Your task to perform on an android device: Open the map Image 0: 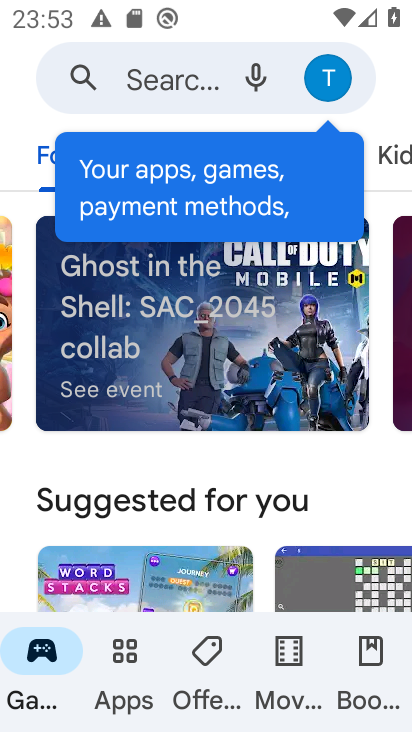
Step 0: press home button
Your task to perform on an android device: Open the map Image 1: 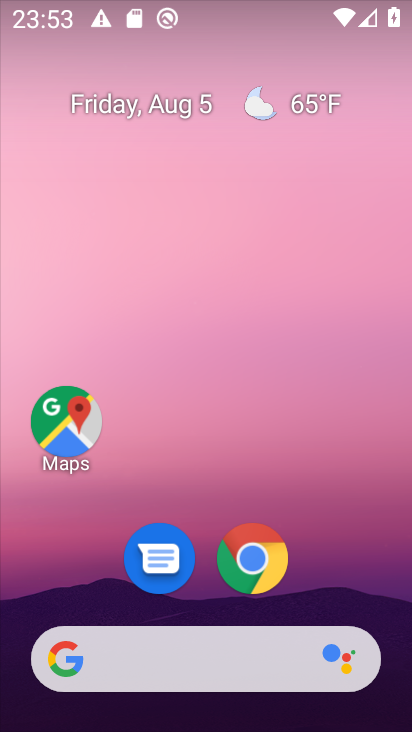
Step 1: drag from (339, 604) to (383, 285)
Your task to perform on an android device: Open the map Image 2: 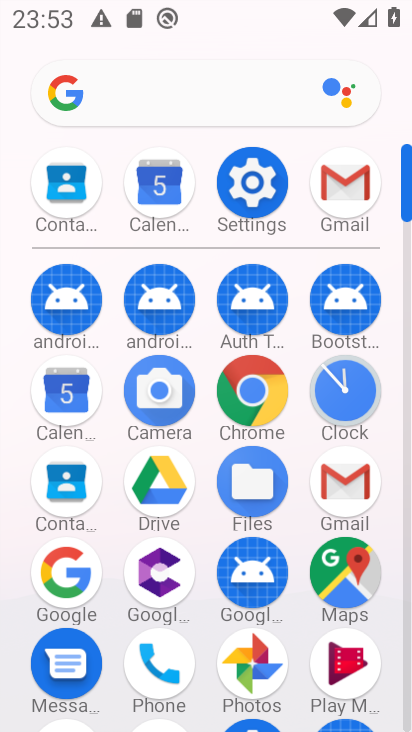
Step 2: click (341, 582)
Your task to perform on an android device: Open the map Image 3: 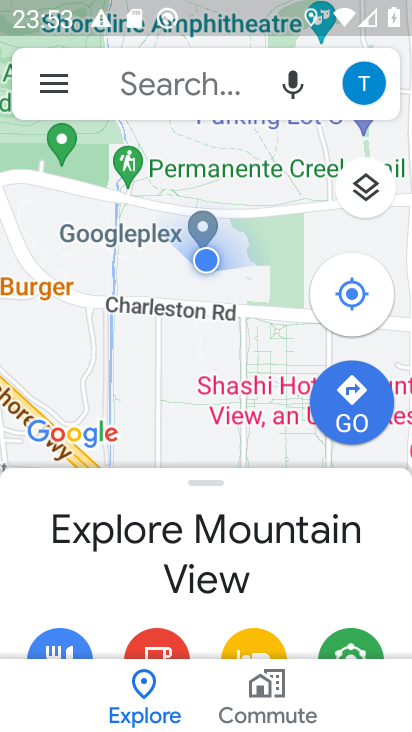
Step 3: task complete